Your task to perform on an android device: change the clock display to show seconds Image 0: 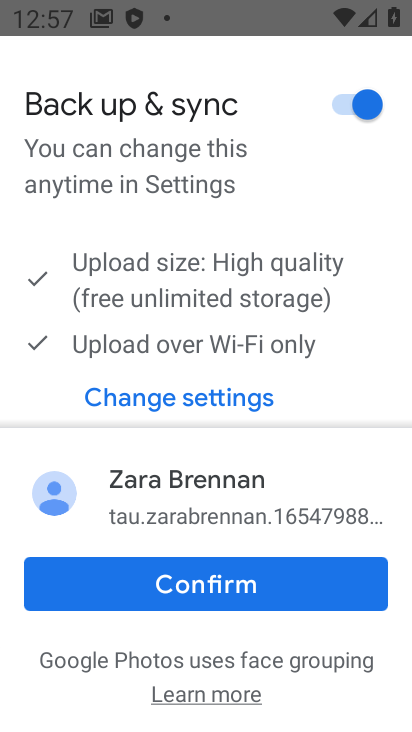
Step 0: press home button
Your task to perform on an android device: change the clock display to show seconds Image 1: 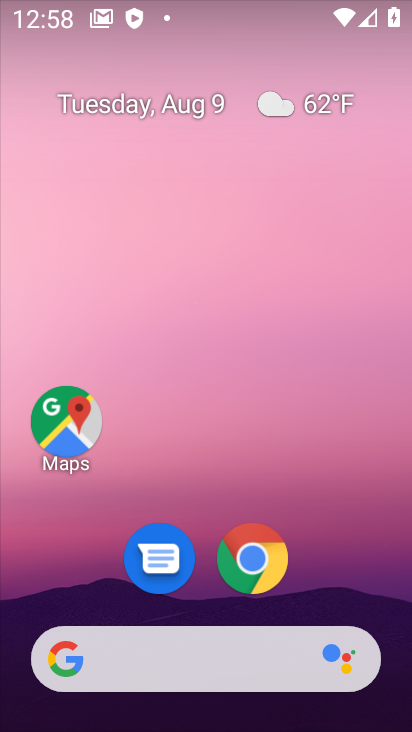
Step 1: drag from (338, 387) to (268, 38)
Your task to perform on an android device: change the clock display to show seconds Image 2: 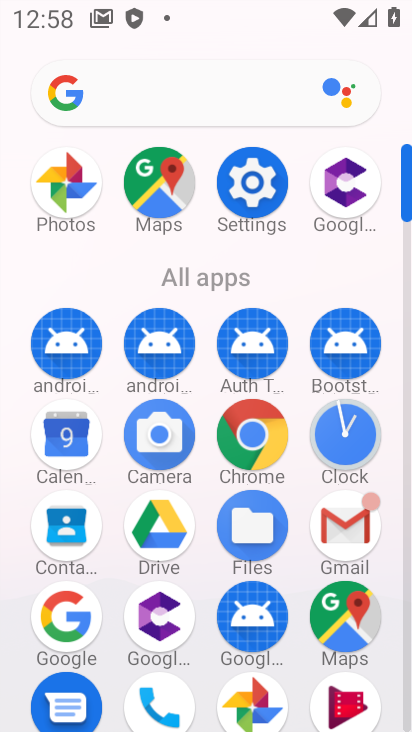
Step 2: click (340, 425)
Your task to perform on an android device: change the clock display to show seconds Image 3: 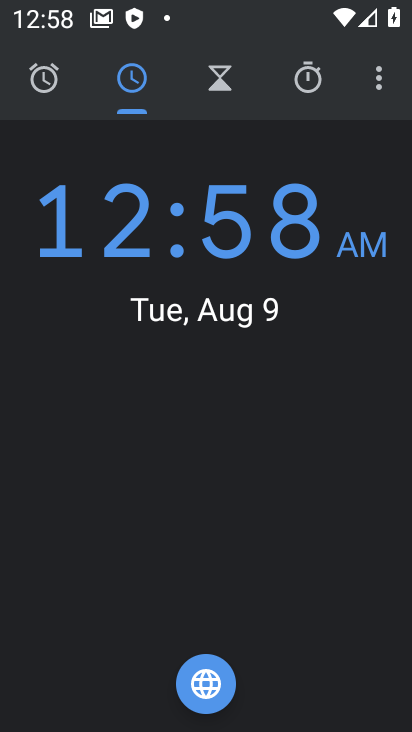
Step 3: click (379, 89)
Your task to perform on an android device: change the clock display to show seconds Image 4: 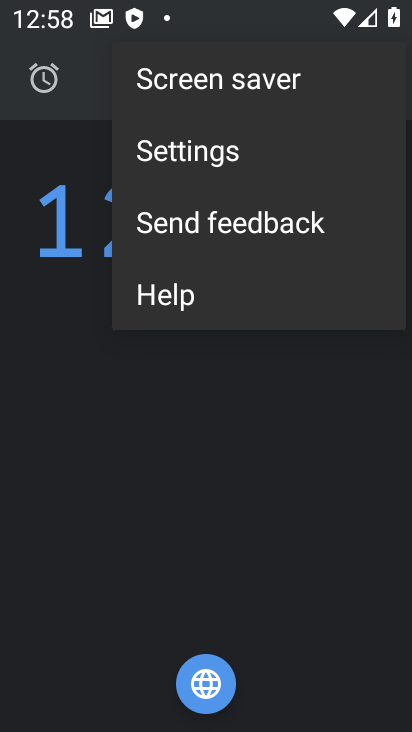
Step 4: click (266, 150)
Your task to perform on an android device: change the clock display to show seconds Image 5: 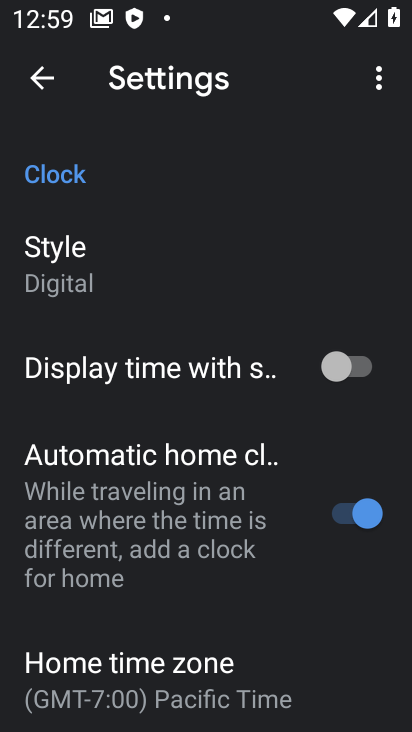
Step 5: click (351, 370)
Your task to perform on an android device: change the clock display to show seconds Image 6: 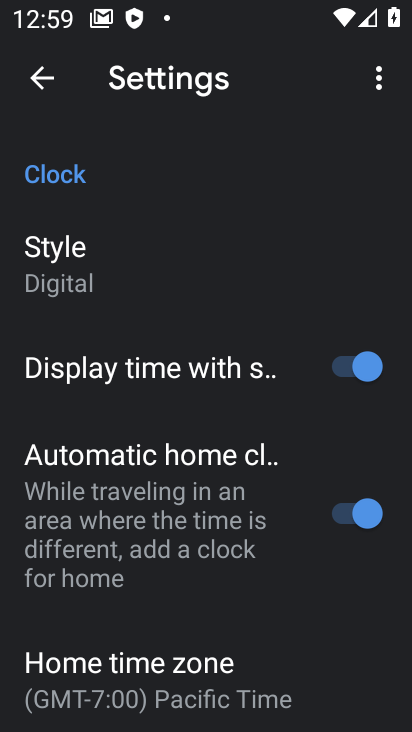
Step 6: task complete